Your task to perform on an android device: choose inbox layout in the gmail app Image 0: 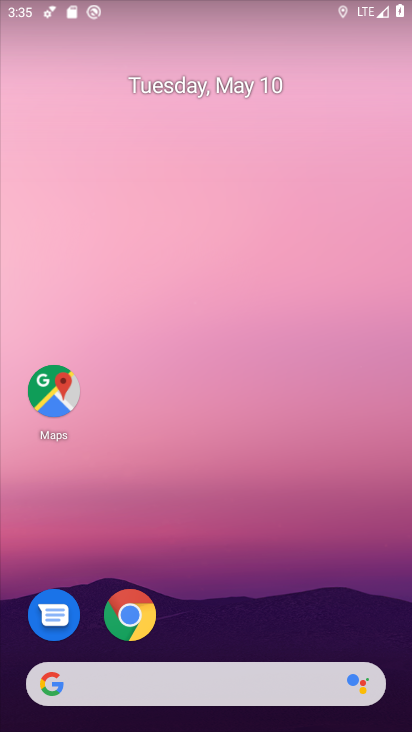
Step 0: drag from (219, 551) to (248, 90)
Your task to perform on an android device: choose inbox layout in the gmail app Image 1: 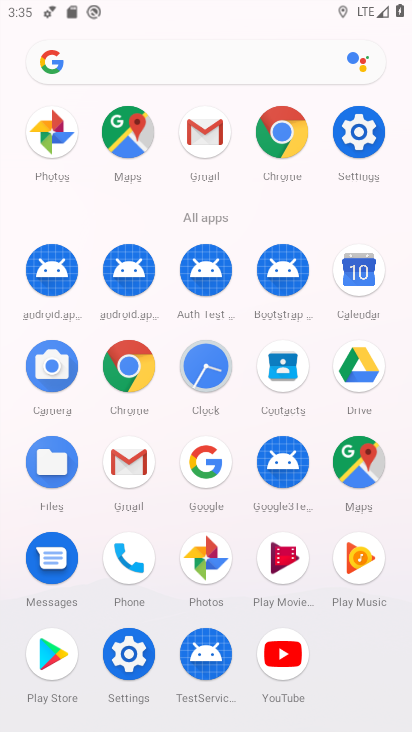
Step 1: click (219, 132)
Your task to perform on an android device: choose inbox layout in the gmail app Image 2: 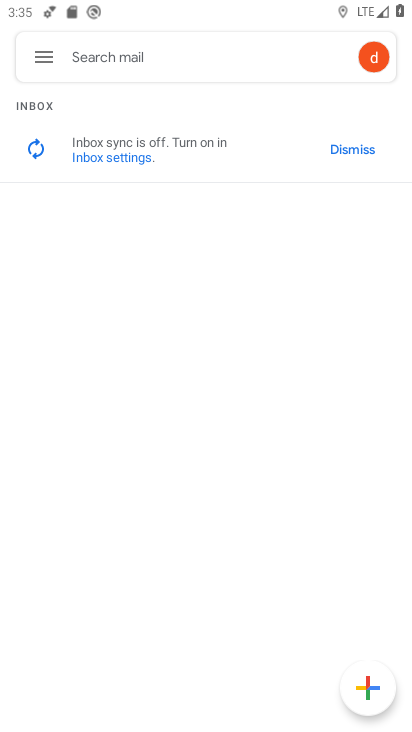
Step 2: click (41, 62)
Your task to perform on an android device: choose inbox layout in the gmail app Image 3: 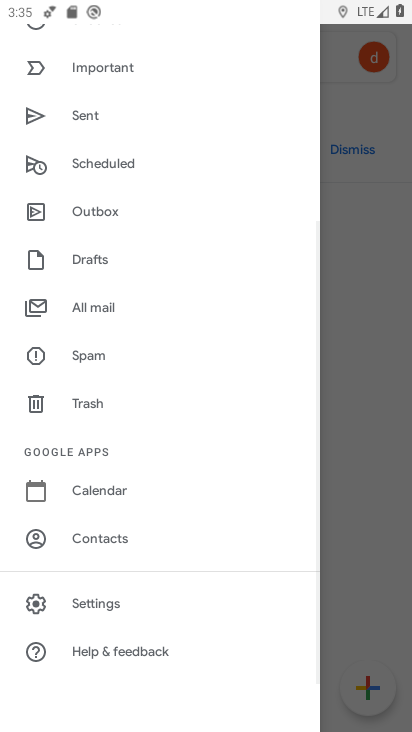
Step 3: drag from (231, 621) to (226, 498)
Your task to perform on an android device: choose inbox layout in the gmail app Image 4: 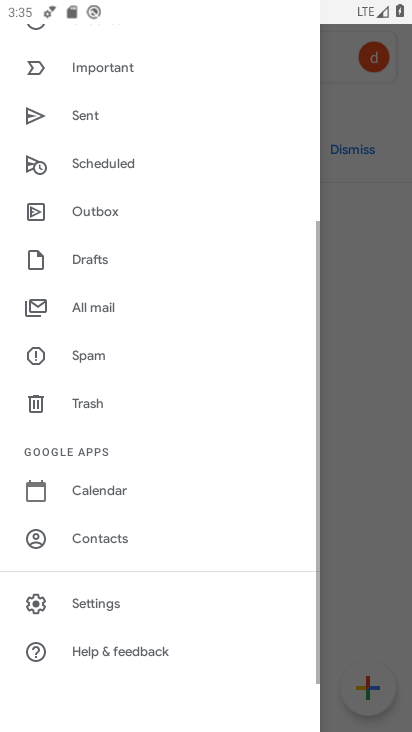
Step 4: click (101, 599)
Your task to perform on an android device: choose inbox layout in the gmail app Image 5: 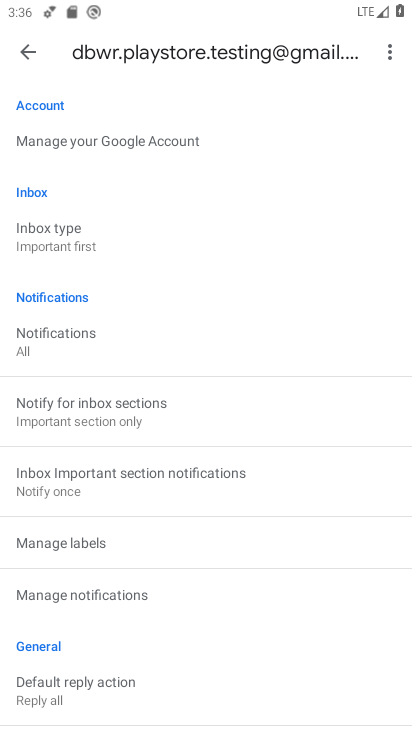
Step 5: click (76, 238)
Your task to perform on an android device: choose inbox layout in the gmail app Image 6: 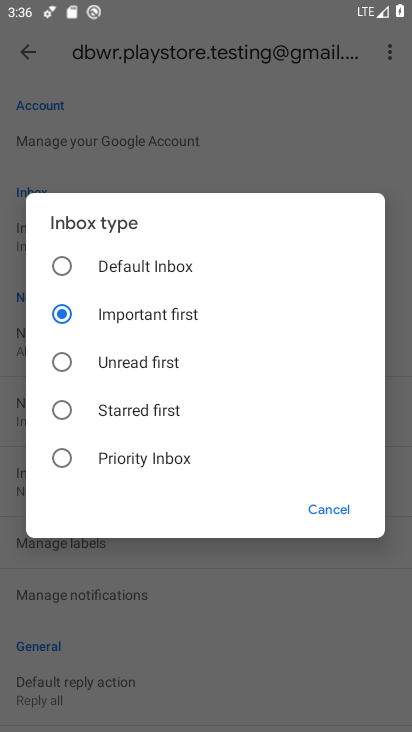
Step 6: click (124, 262)
Your task to perform on an android device: choose inbox layout in the gmail app Image 7: 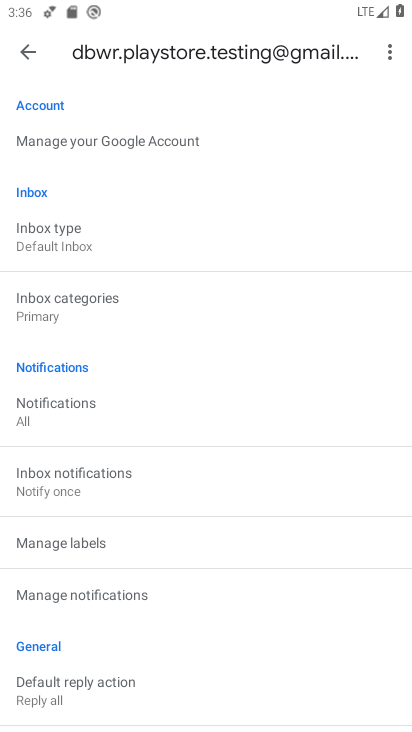
Step 7: task complete